Your task to perform on an android device: Go to Maps Image 0: 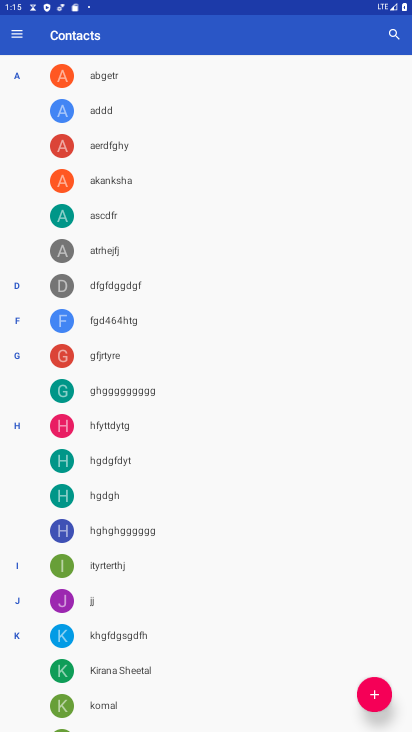
Step 0: press home button
Your task to perform on an android device: Go to Maps Image 1: 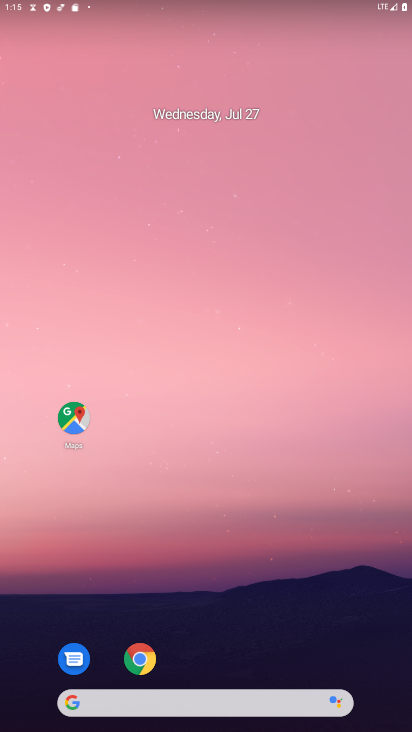
Step 1: drag from (262, 728) to (294, 222)
Your task to perform on an android device: Go to Maps Image 2: 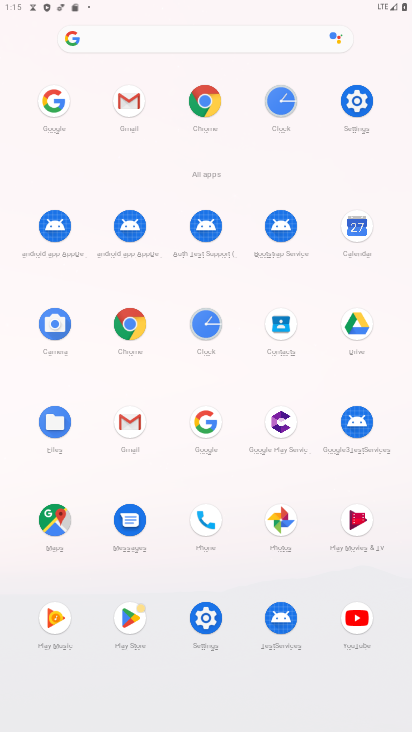
Step 2: click (51, 525)
Your task to perform on an android device: Go to Maps Image 3: 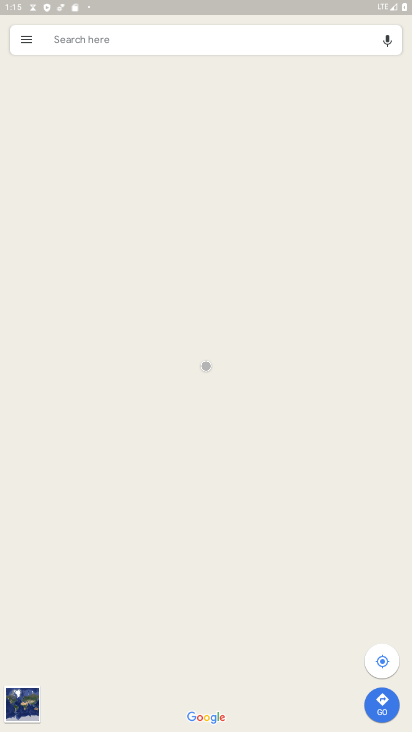
Step 3: task complete